Your task to perform on an android device: Go to Google Image 0: 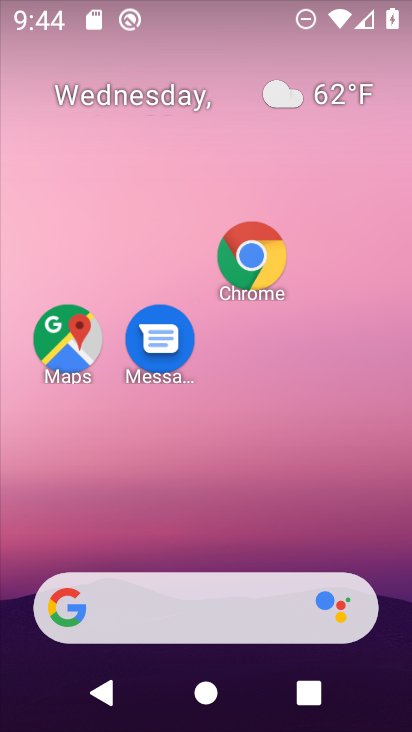
Step 0: drag from (182, 340) to (155, 100)
Your task to perform on an android device: Go to Google Image 1: 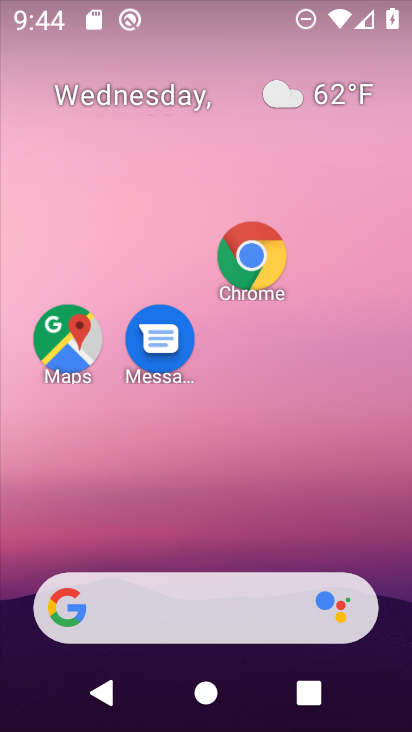
Step 1: drag from (251, 480) to (239, 44)
Your task to perform on an android device: Go to Google Image 2: 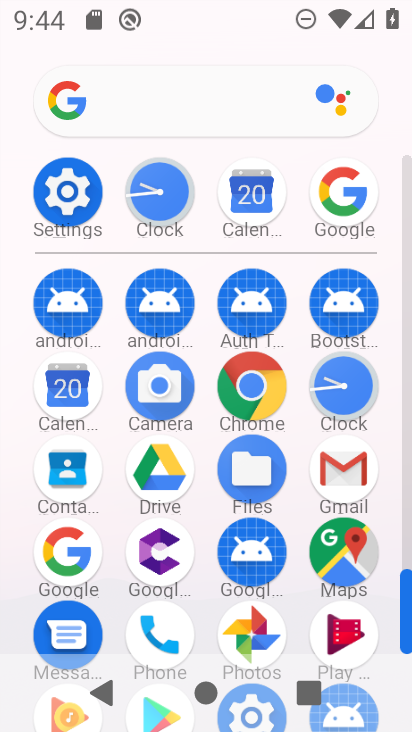
Step 2: click (346, 195)
Your task to perform on an android device: Go to Google Image 3: 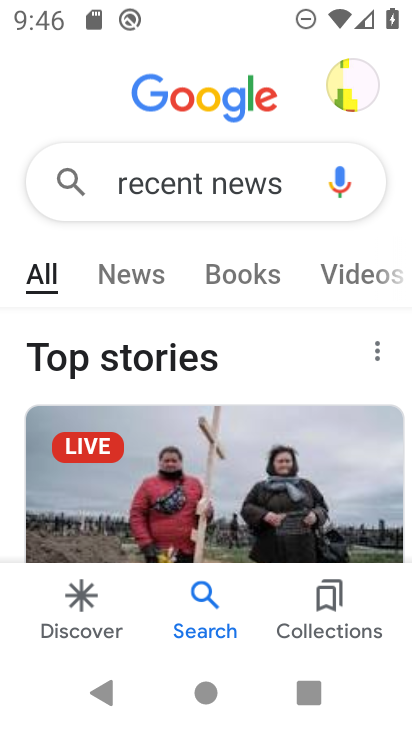
Step 3: task complete